Your task to perform on an android device: Open privacy settings Image 0: 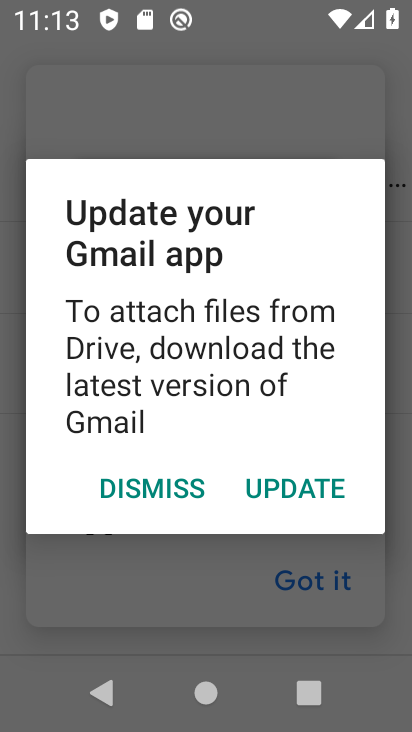
Step 0: press home button
Your task to perform on an android device: Open privacy settings Image 1: 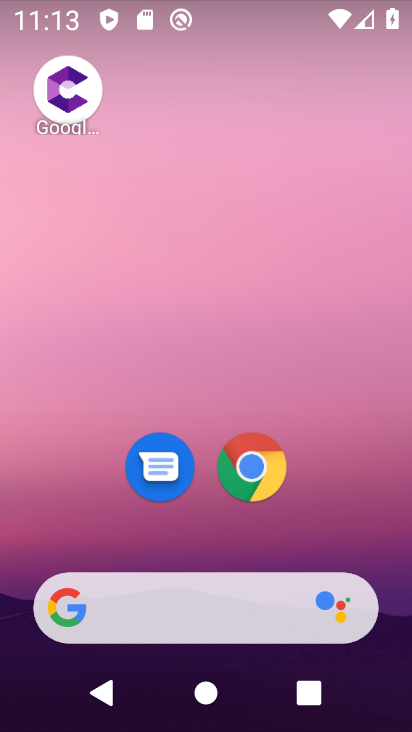
Step 1: drag from (363, 514) to (326, 90)
Your task to perform on an android device: Open privacy settings Image 2: 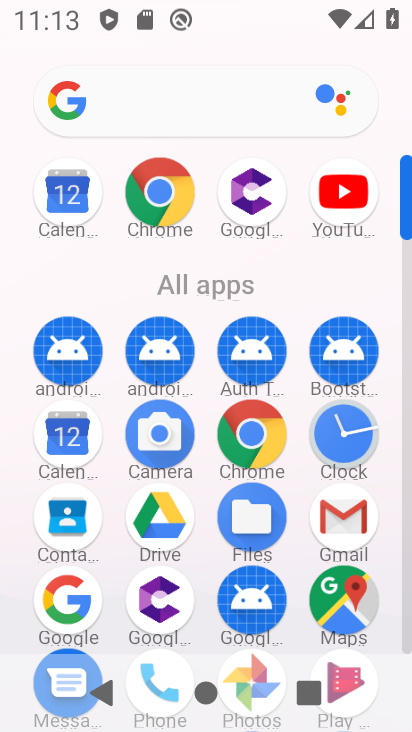
Step 2: drag from (387, 554) to (380, 175)
Your task to perform on an android device: Open privacy settings Image 3: 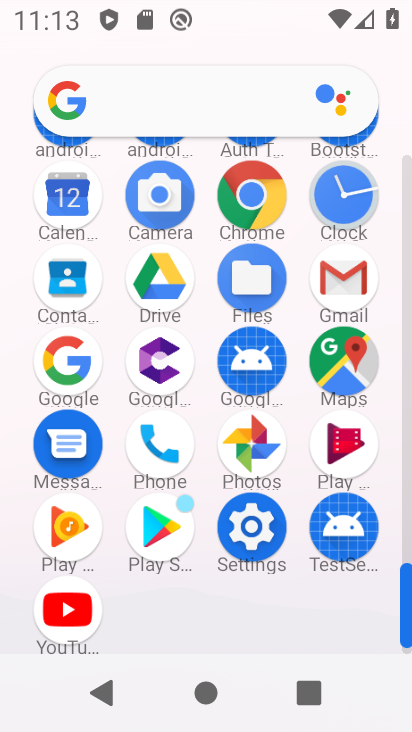
Step 3: click (245, 535)
Your task to perform on an android device: Open privacy settings Image 4: 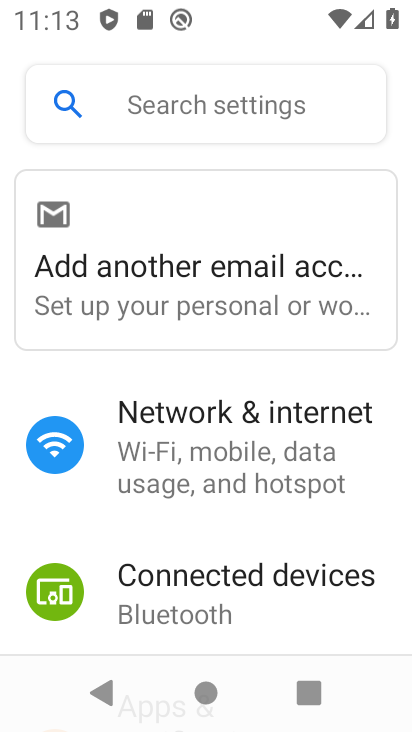
Step 4: drag from (160, 538) to (194, 157)
Your task to perform on an android device: Open privacy settings Image 5: 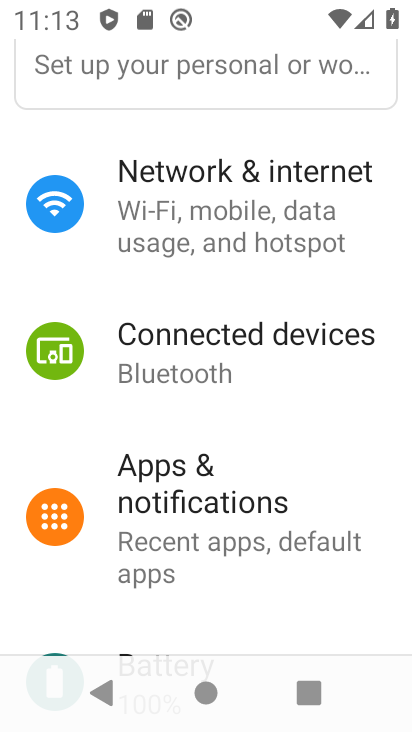
Step 5: drag from (224, 571) to (334, 213)
Your task to perform on an android device: Open privacy settings Image 6: 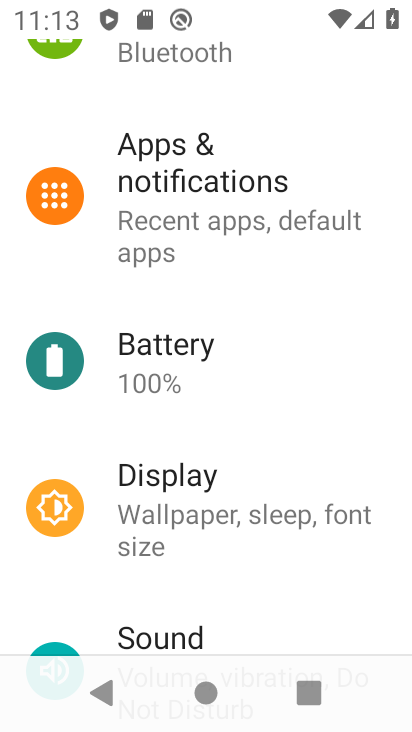
Step 6: drag from (185, 602) to (288, 247)
Your task to perform on an android device: Open privacy settings Image 7: 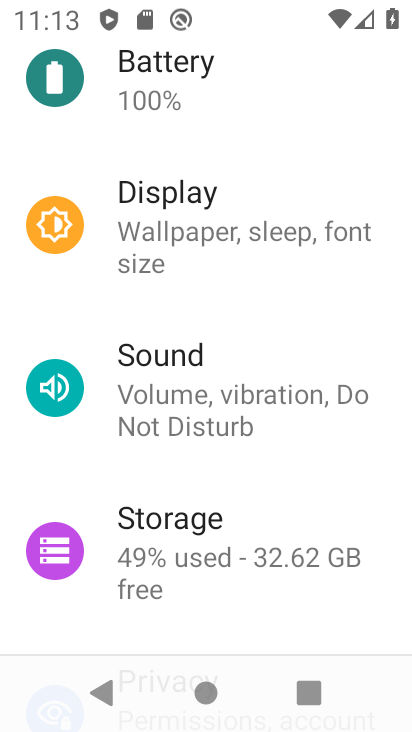
Step 7: drag from (212, 534) to (263, 180)
Your task to perform on an android device: Open privacy settings Image 8: 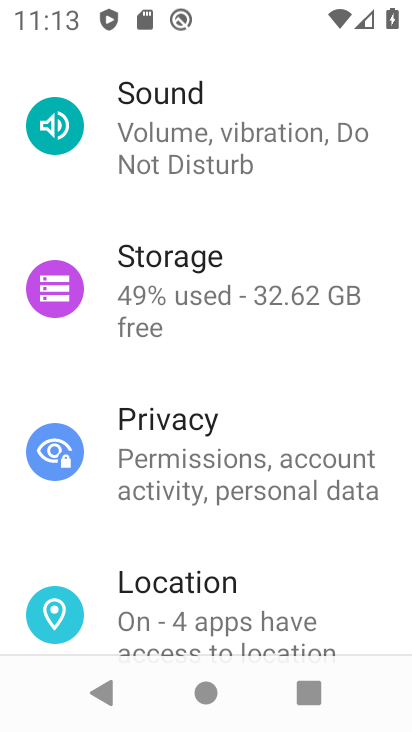
Step 8: click (186, 477)
Your task to perform on an android device: Open privacy settings Image 9: 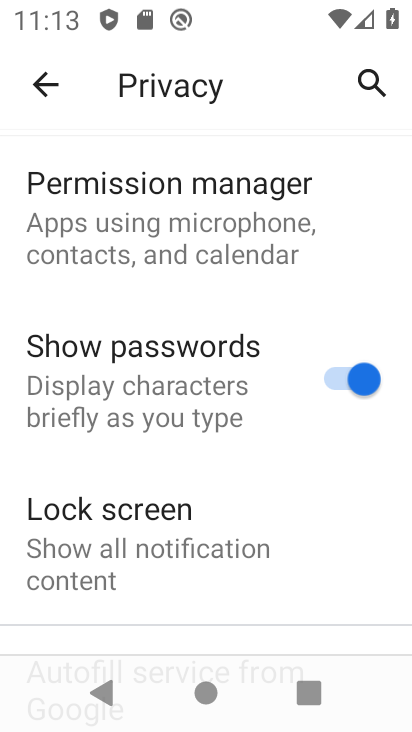
Step 9: task complete